Your task to perform on an android device: Open Google Chrome and click the shortcut for Amazon.com Image 0: 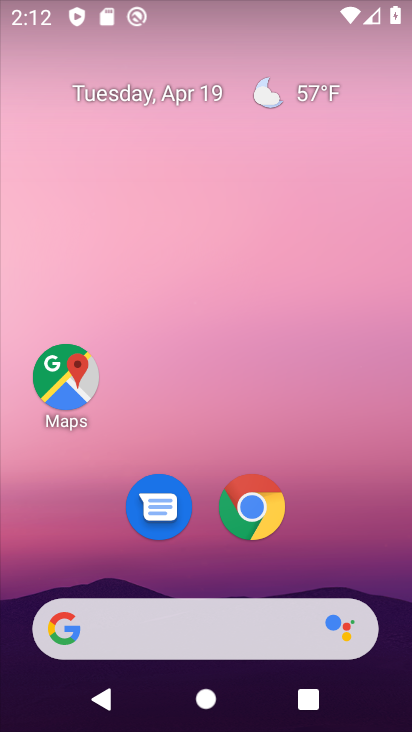
Step 0: drag from (254, 585) to (292, 106)
Your task to perform on an android device: Open Google Chrome and click the shortcut for Amazon.com Image 1: 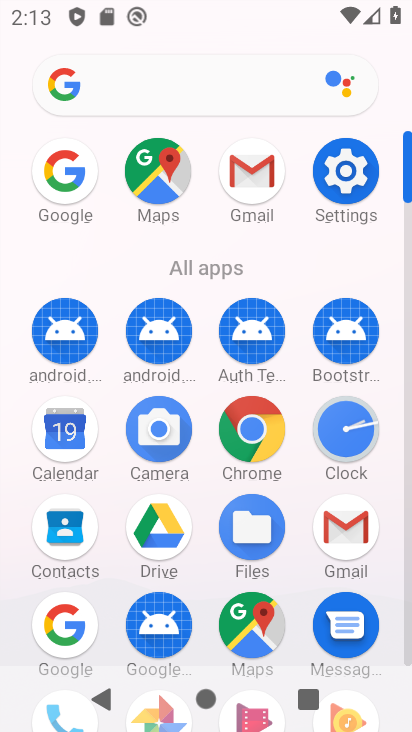
Step 1: click (247, 443)
Your task to perform on an android device: Open Google Chrome and click the shortcut for Amazon.com Image 2: 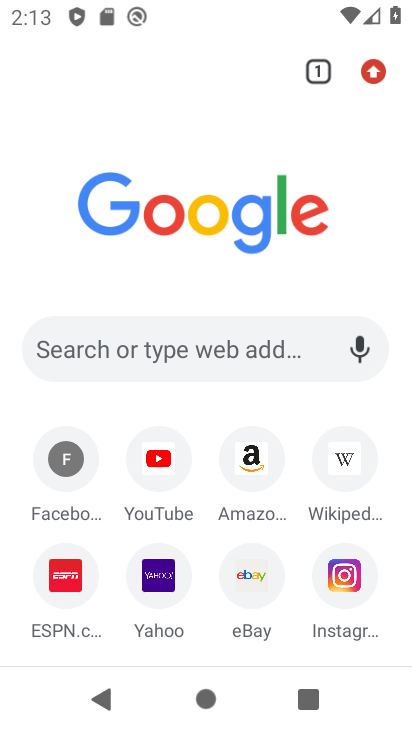
Step 2: click (253, 460)
Your task to perform on an android device: Open Google Chrome and click the shortcut for Amazon.com Image 3: 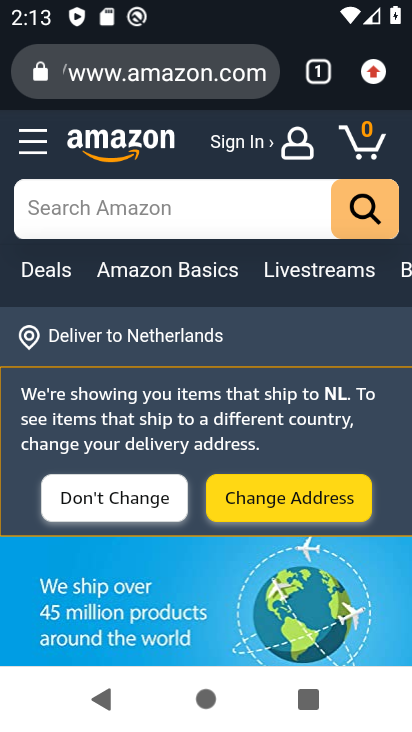
Step 3: click (382, 81)
Your task to perform on an android device: Open Google Chrome and click the shortcut for Amazon.com Image 4: 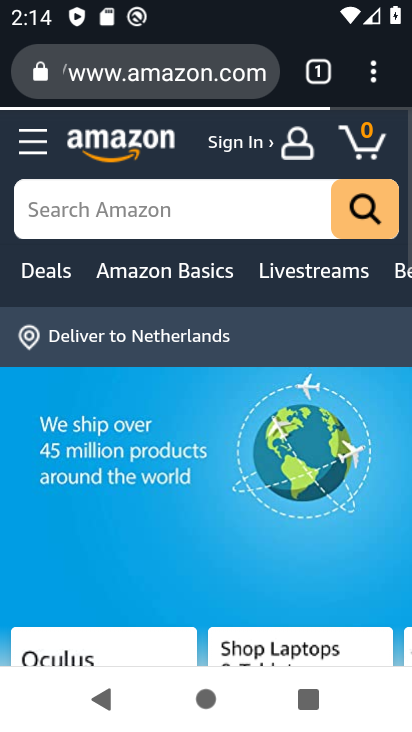
Step 4: click (382, 81)
Your task to perform on an android device: Open Google Chrome and click the shortcut for Amazon.com Image 5: 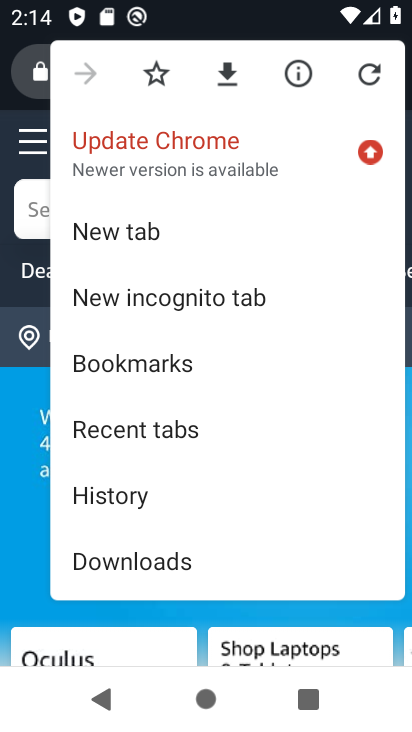
Step 5: drag from (211, 510) to (257, 177)
Your task to perform on an android device: Open Google Chrome and click the shortcut for Amazon.com Image 6: 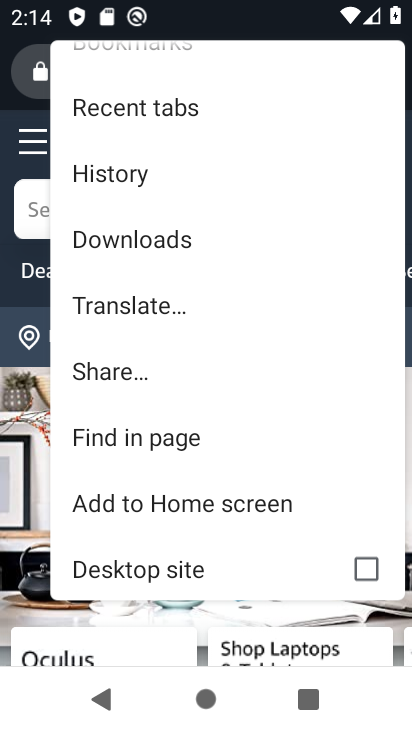
Step 6: click (231, 504)
Your task to perform on an android device: Open Google Chrome and click the shortcut for Amazon.com Image 7: 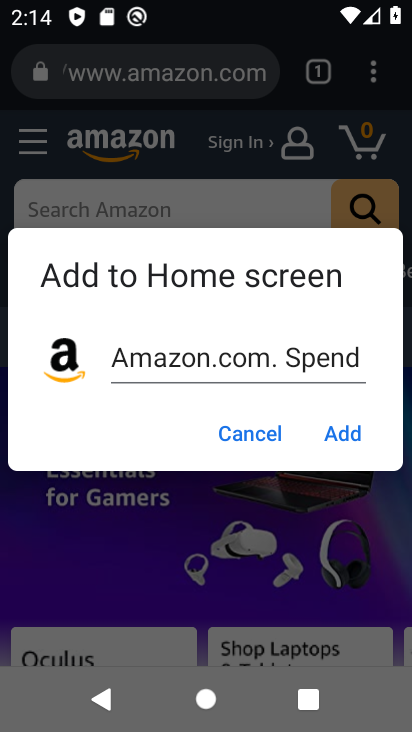
Step 7: click (345, 424)
Your task to perform on an android device: Open Google Chrome and click the shortcut for Amazon.com Image 8: 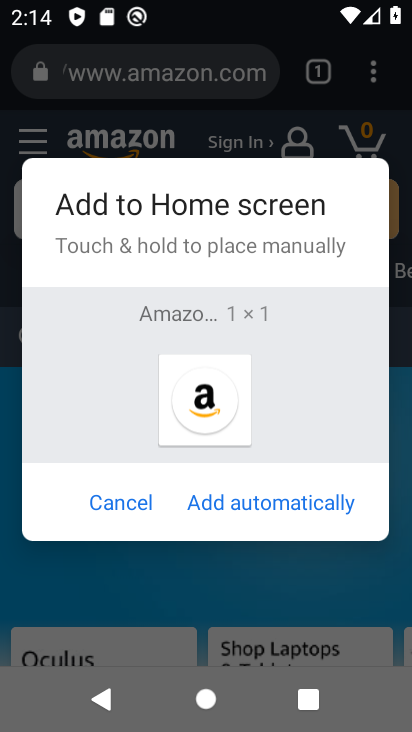
Step 8: click (295, 502)
Your task to perform on an android device: Open Google Chrome and click the shortcut for Amazon.com Image 9: 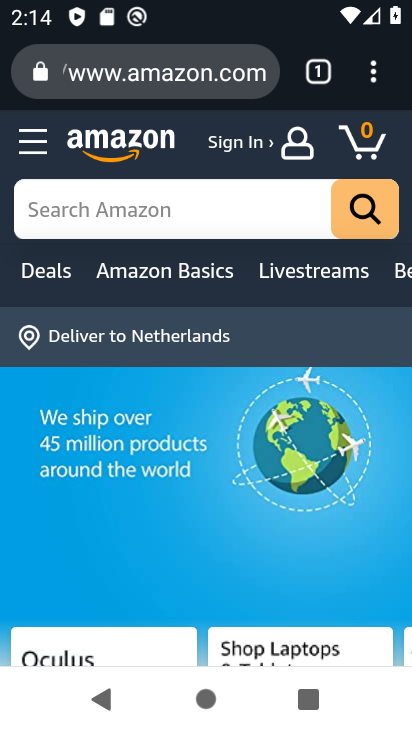
Step 9: task complete